Your task to perform on an android device: Show me recent news Image 0: 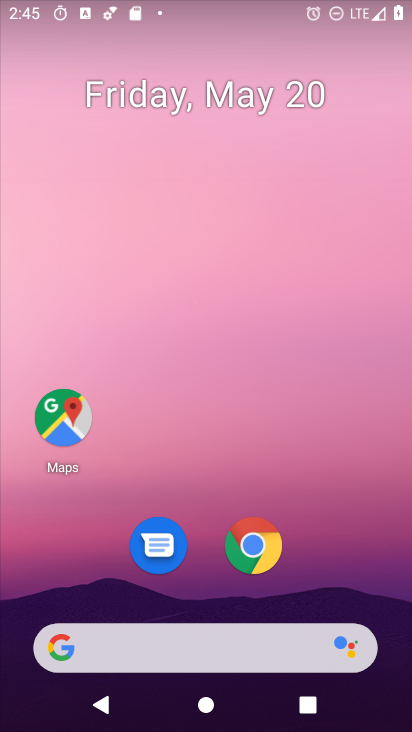
Step 0: drag from (303, 638) to (329, 111)
Your task to perform on an android device: Show me recent news Image 1: 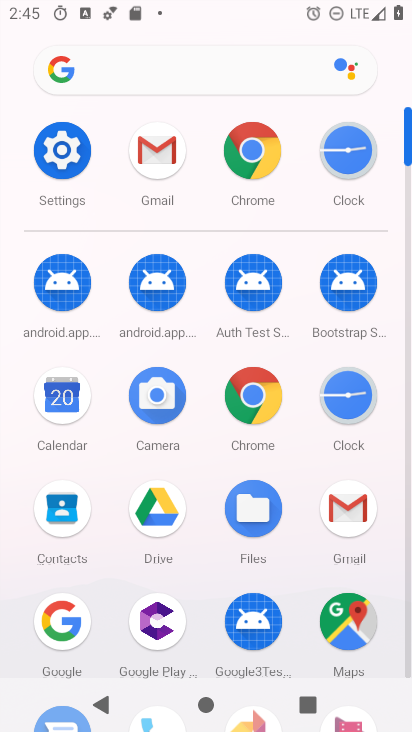
Step 1: click (252, 409)
Your task to perform on an android device: Show me recent news Image 2: 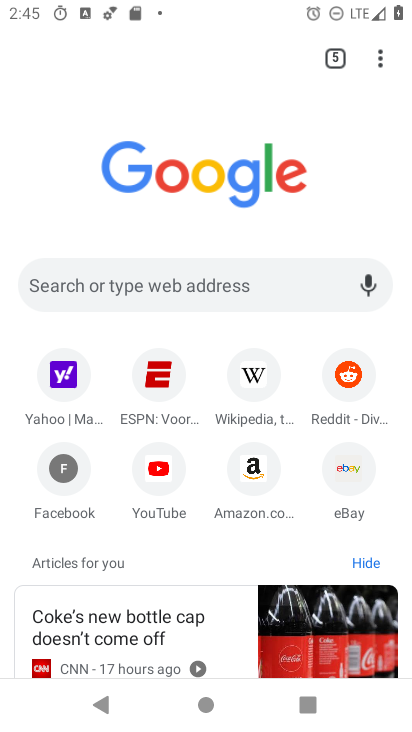
Step 2: click (219, 286)
Your task to perform on an android device: Show me recent news Image 3: 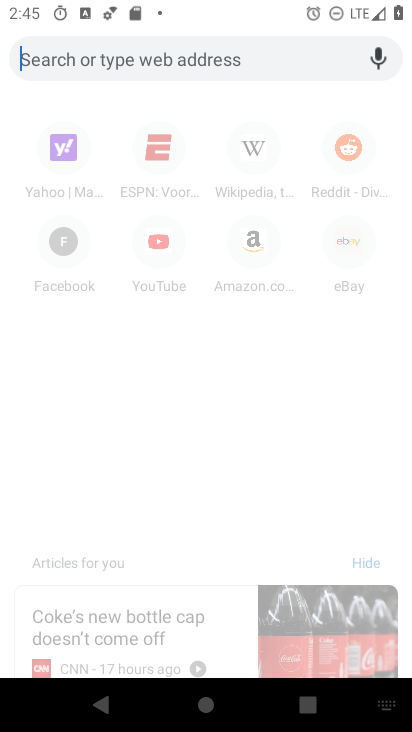
Step 3: type "recent news"
Your task to perform on an android device: Show me recent news Image 4: 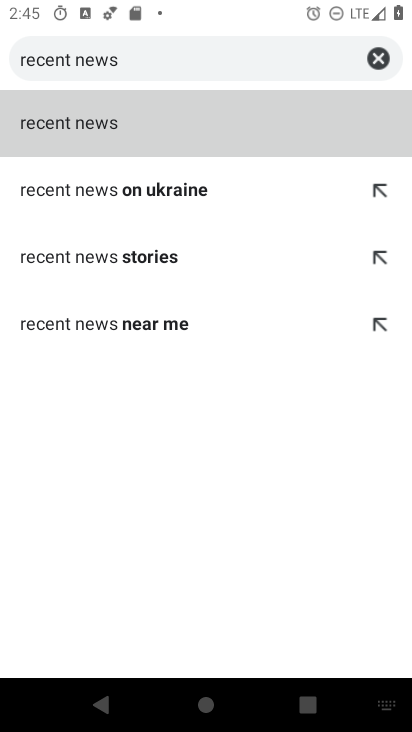
Step 4: click (321, 129)
Your task to perform on an android device: Show me recent news Image 5: 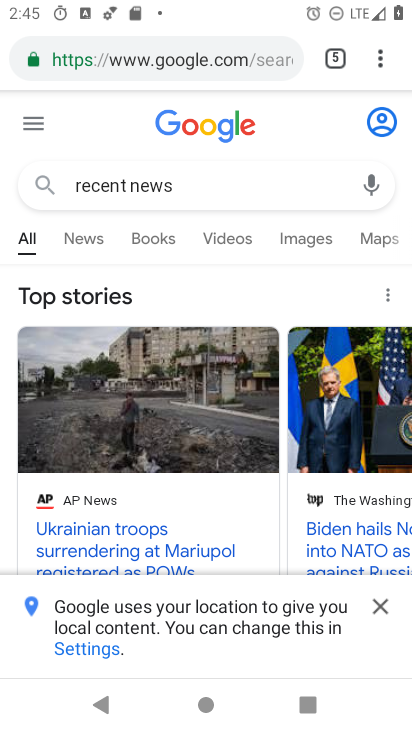
Step 5: task complete